Your task to perform on an android device: read, delete, or share a saved page in the chrome app Image 0: 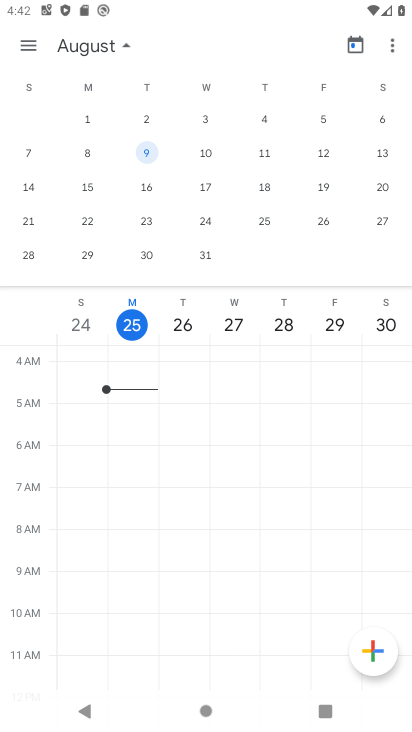
Step 0: press home button
Your task to perform on an android device: read, delete, or share a saved page in the chrome app Image 1: 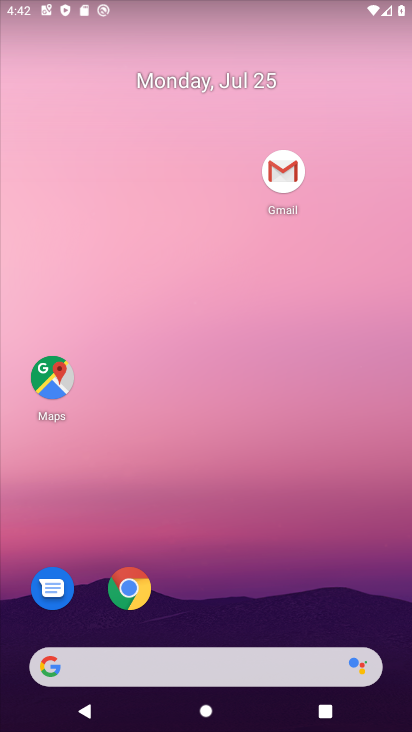
Step 1: click (124, 593)
Your task to perform on an android device: read, delete, or share a saved page in the chrome app Image 2: 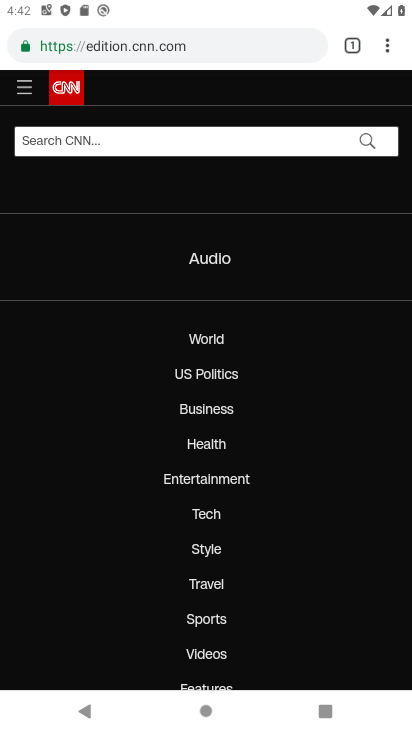
Step 2: task complete